Your task to perform on an android device: Open location settings Image 0: 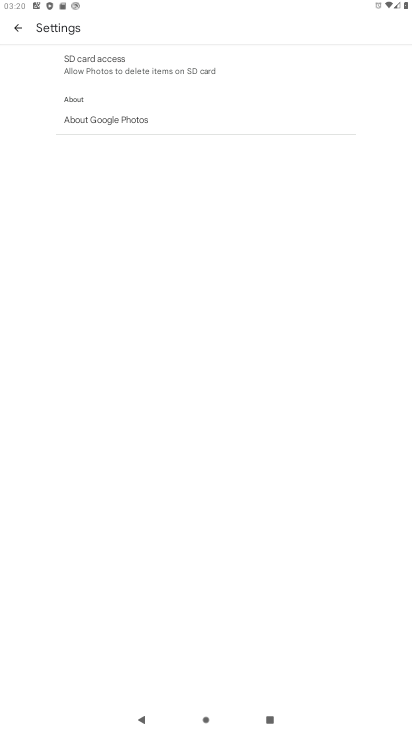
Step 0: press home button
Your task to perform on an android device: Open location settings Image 1: 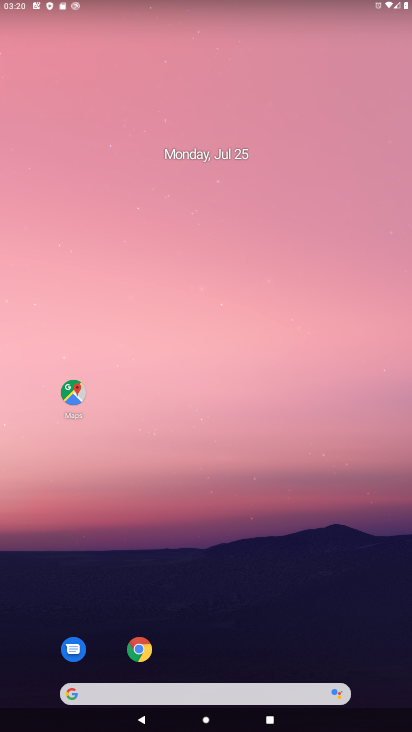
Step 1: drag from (322, 648) to (344, 98)
Your task to perform on an android device: Open location settings Image 2: 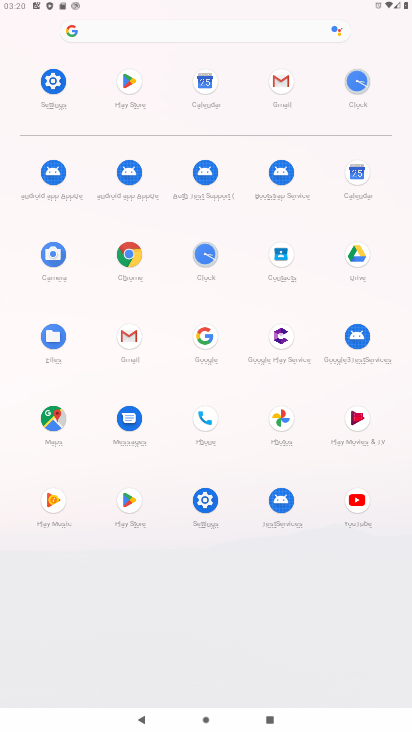
Step 2: click (204, 501)
Your task to perform on an android device: Open location settings Image 3: 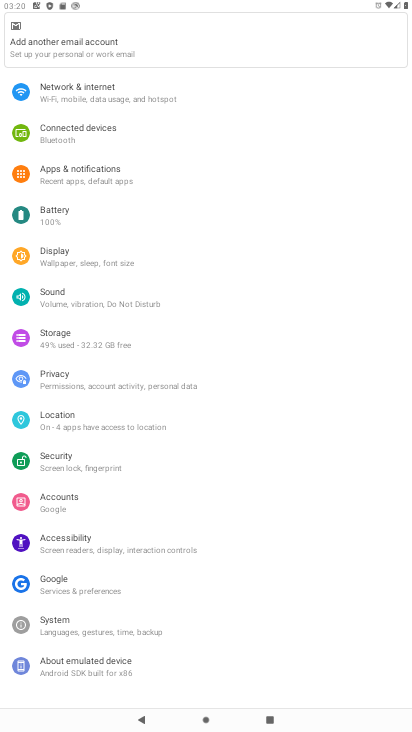
Step 3: click (67, 411)
Your task to perform on an android device: Open location settings Image 4: 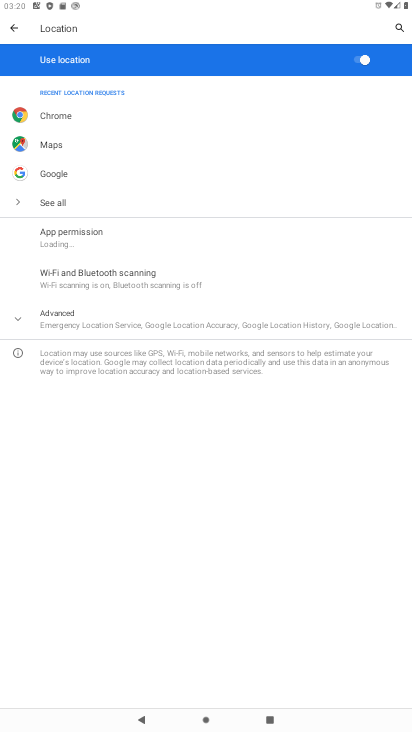
Step 4: click (18, 320)
Your task to perform on an android device: Open location settings Image 5: 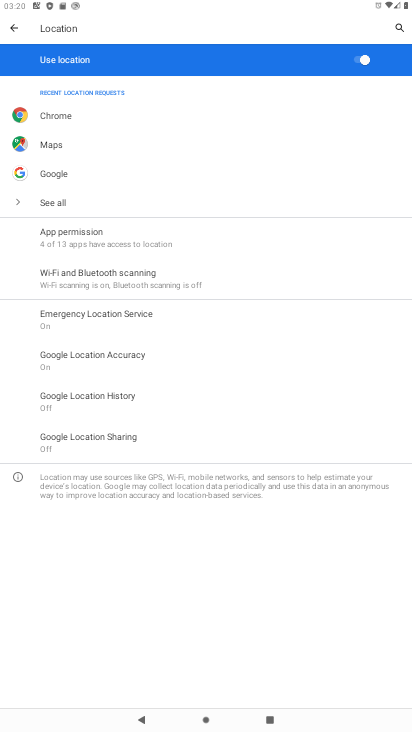
Step 5: task complete